Your task to perform on an android device: open a bookmark in the chrome app Image 0: 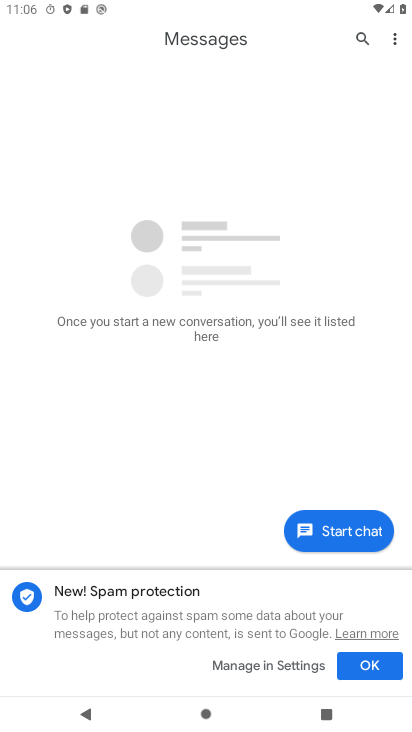
Step 0: press home button
Your task to perform on an android device: open a bookmark in the chrome app Image 1: 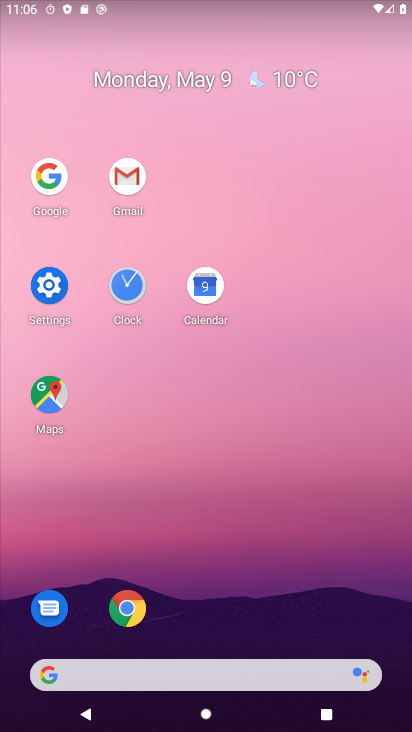
Step 1: click (131, 618)
Your task to perform on an android device: open a bookmark in the chrome app Image 2: 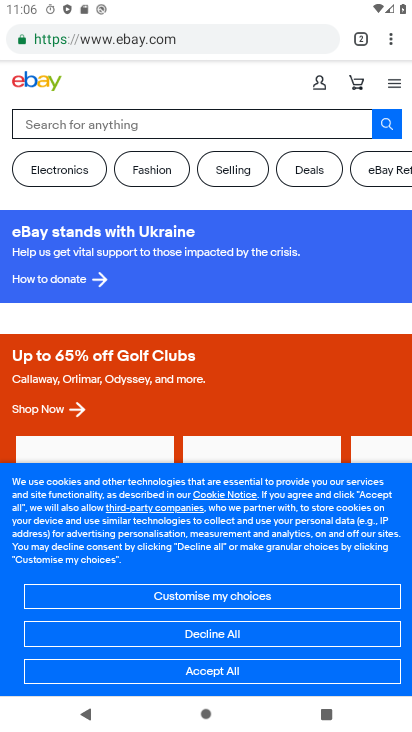
Step 2: click (397, 37)
Your task to perform on an android device: open a bookmark in the chrome app Image 3: 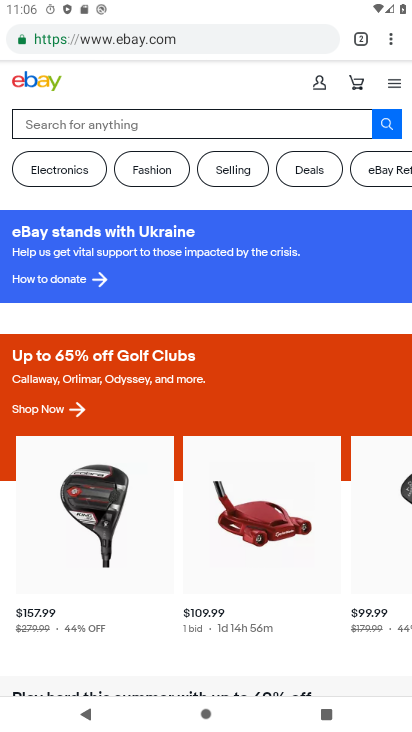
Step 3: click (389, 37)
Your task to perform on an android device: open a bookmark in the chrome app Image 4: 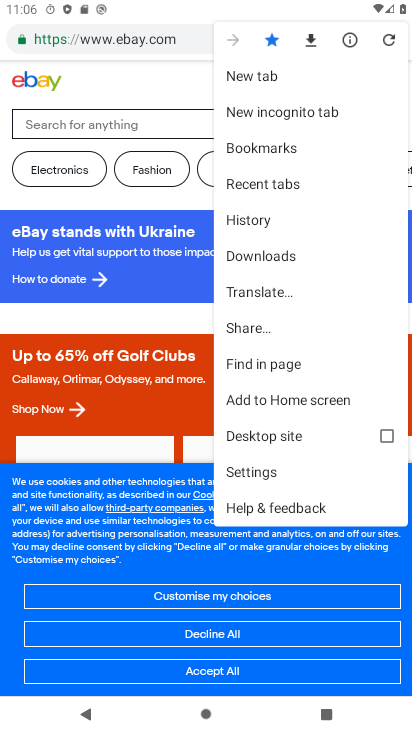
Step 4: click (276, 144)
Your task to perform on an android device: open a bookmark in the chrome app Image 5: 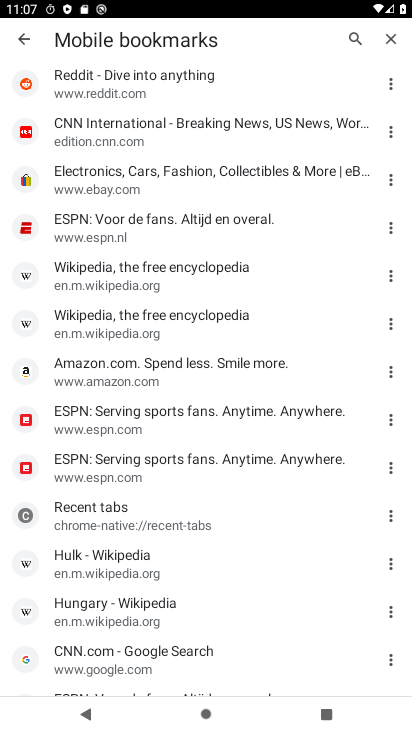
Step 5: task complete